Your task to perform on an android device: empty trash in google photos Image 0: 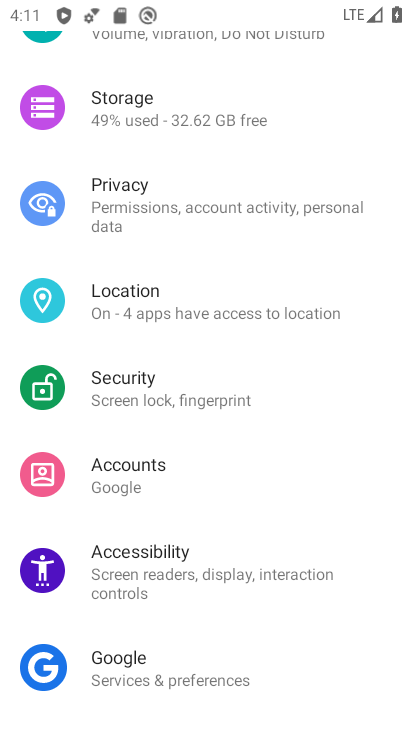
Step 0: press home button
Your task to perform on an android device: empty trash in google photos Image 1: 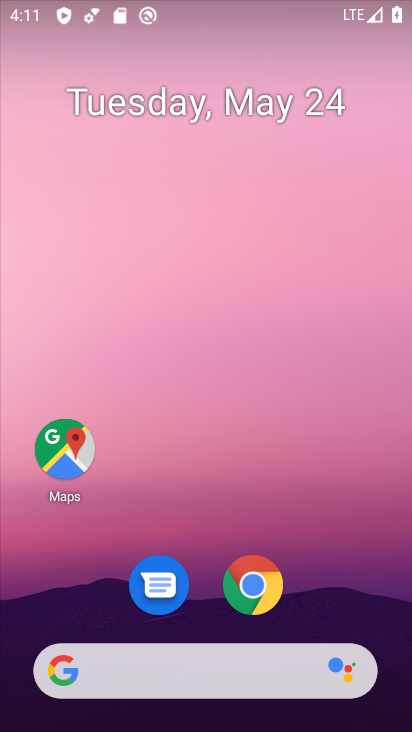
Step 1: drag from (234, 520) to (222, 61)
Your task to perform on an android device: empty trash in google photos Image 2: 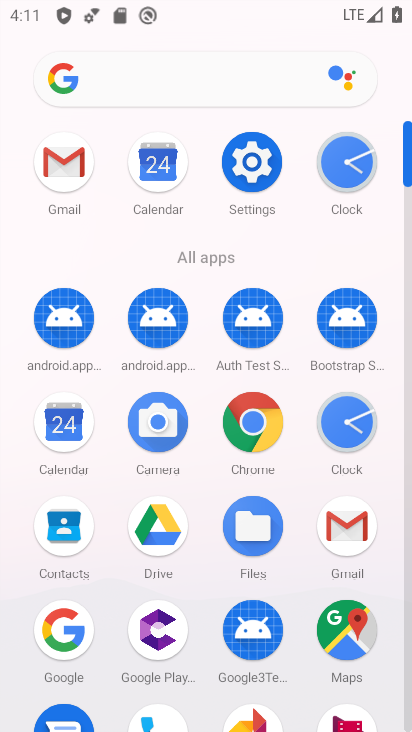
Step 2: drag from (272, 558) to (292, 140)
Your task to perform on an android device: empty trash in google photos Image 3: 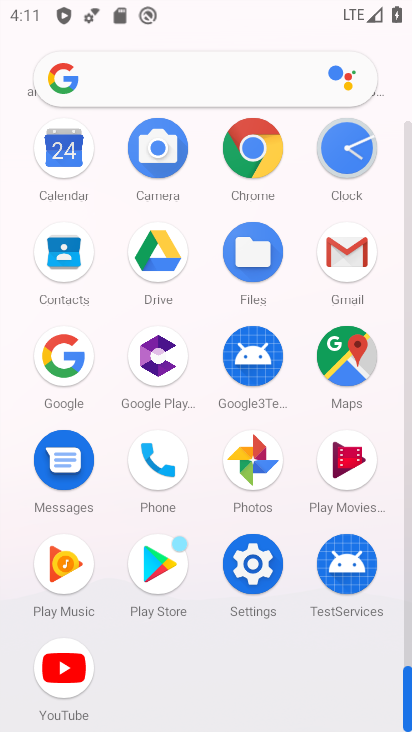
Step 3: click (246, 446)
Your task to perform on an android device: empty trash in google photos Image 4: 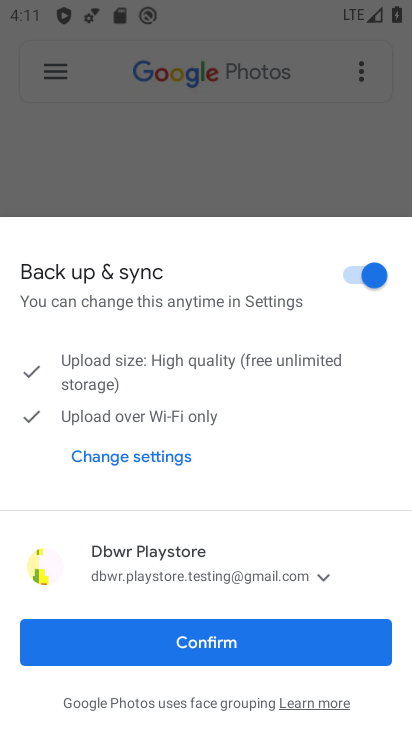
Step 4: click (309, 648)
Your task to perform on an android device: empty trash in google photos Image 5: 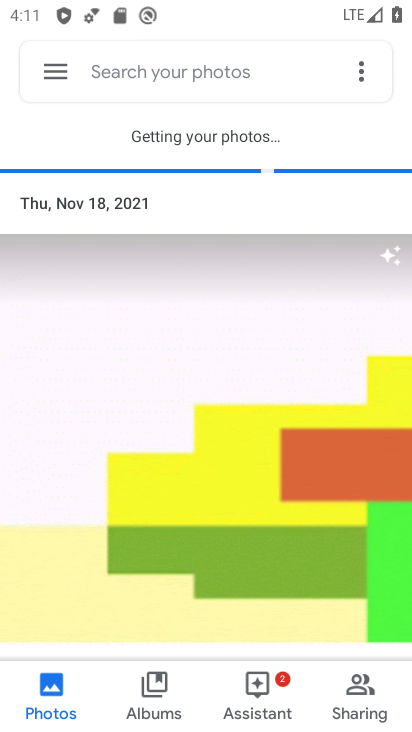
Step 5: click (59, 73)
Your task to perform on an android device: empty trash in google photos Image 6: 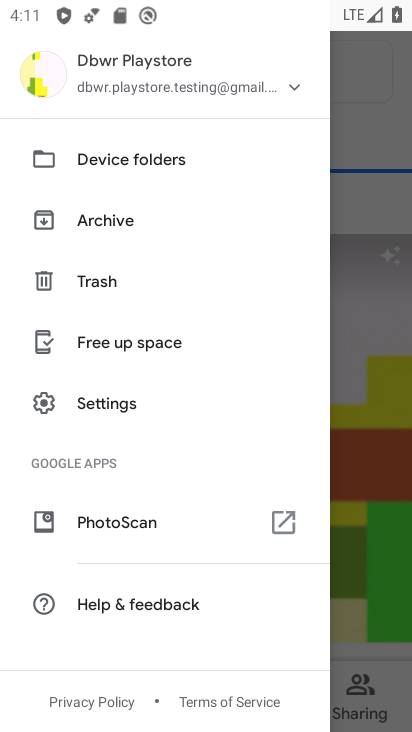
Step 6: click (100, 273)
Your task to perform on an android device: empty trash in google photos Image 7: 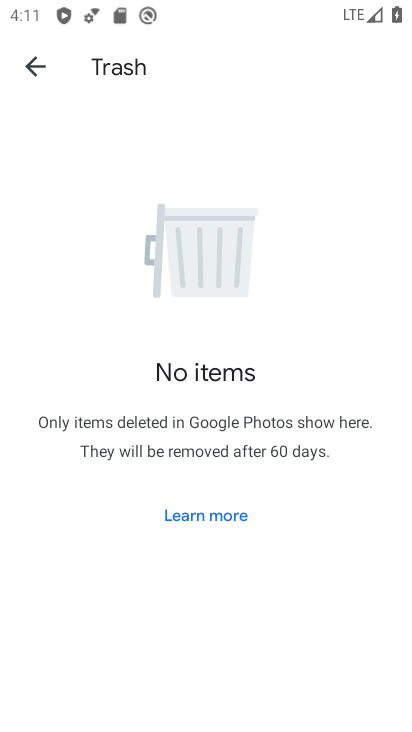
Step 7: task complete